Your task to perform on an android device: Open the stopwatch Image 0: 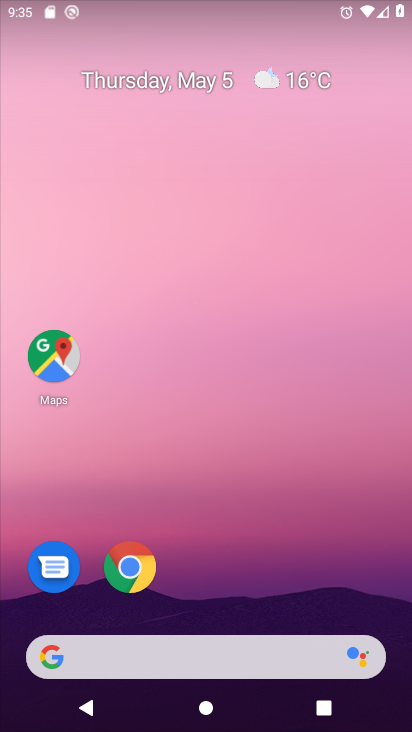
Step 0: drag from (290, 549) to (313, 29)
Your task to perform on an android device: Open the stopwatch Image 1: 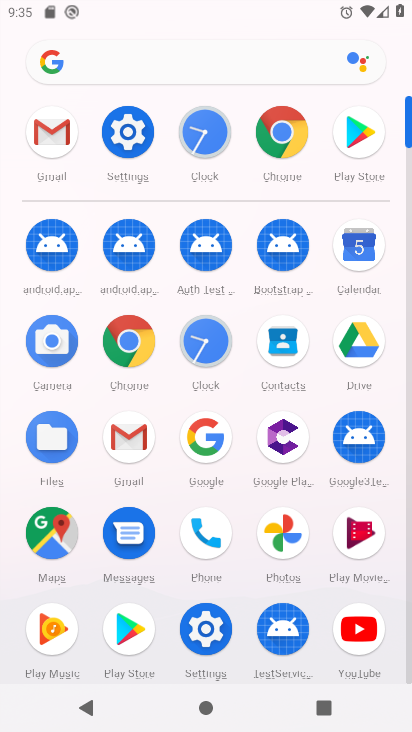
Step 1: click (202, 133)
Your task to perform on an android device: Open the stopwatch Image 2: 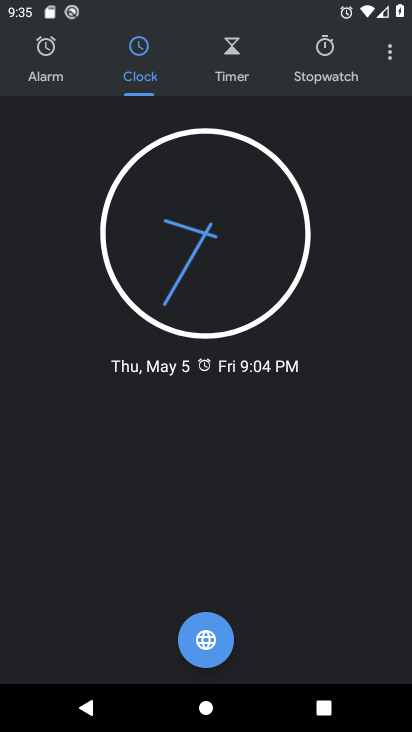
Step 2: click (332, 69)
Your task to perform on an android device: Open the stopwatch Image 3: 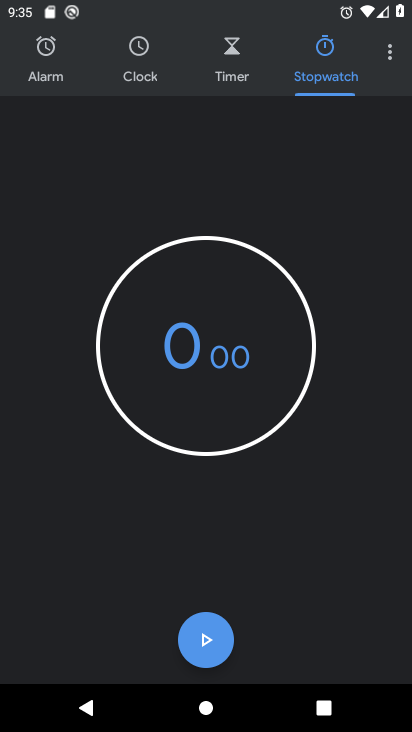
Step 3: task complete